Your task to perform on an android device: refresh tabs in the chrome app Image 0: 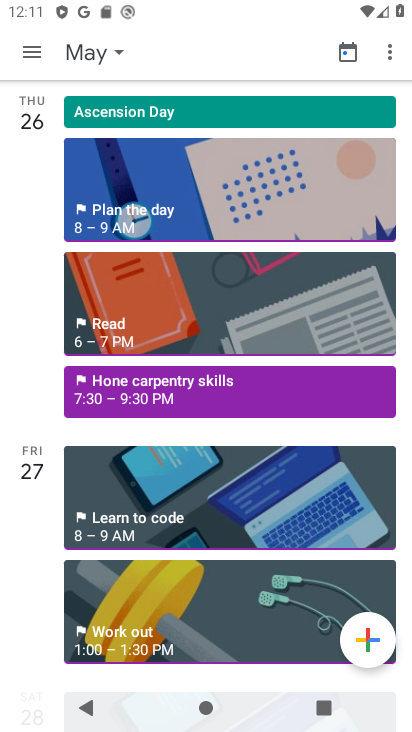
Step 0: press home button
Your task to perform on an android device: refresh tabs in the chrome app Image 1: 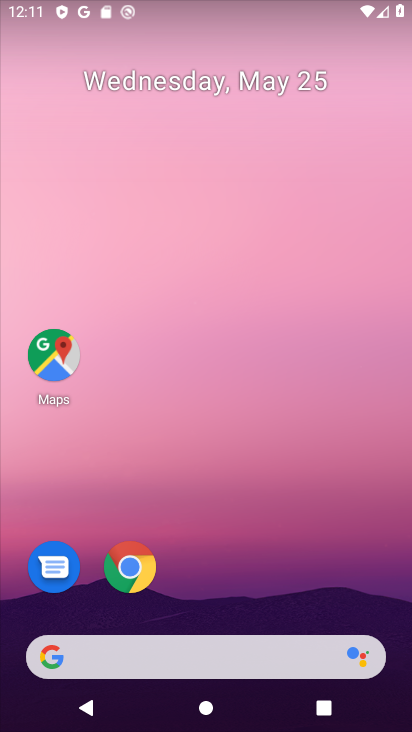
Step 1: click (130, 564)
Your task to perform on an android device: refresh tabs in the chrome app Image 2: 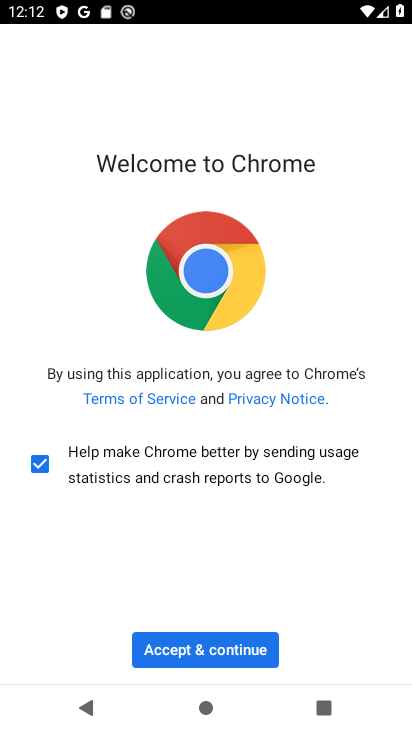
Step 2: click (220, 650)
Your task to perform on an android device: refresh tabs in the chrome app Image 3: 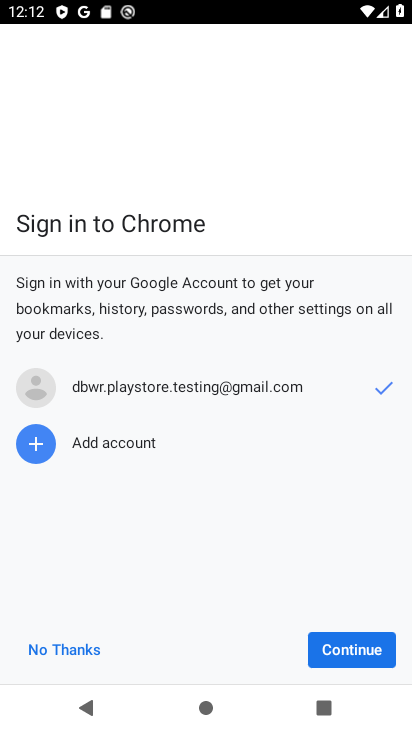
Step 3: click (354, 655)
Your task to perform on an android device: refresh tabs in the chrome app Image 4: 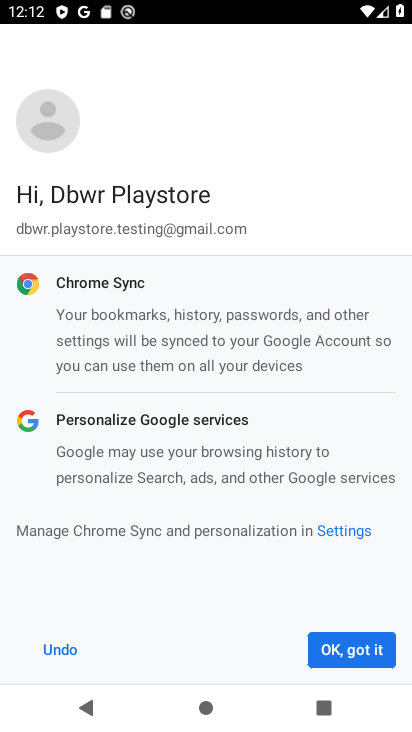
Step 4: click (355, 643)
Your task to perform on an android device: refresh tabs in the chrome app Image 5: 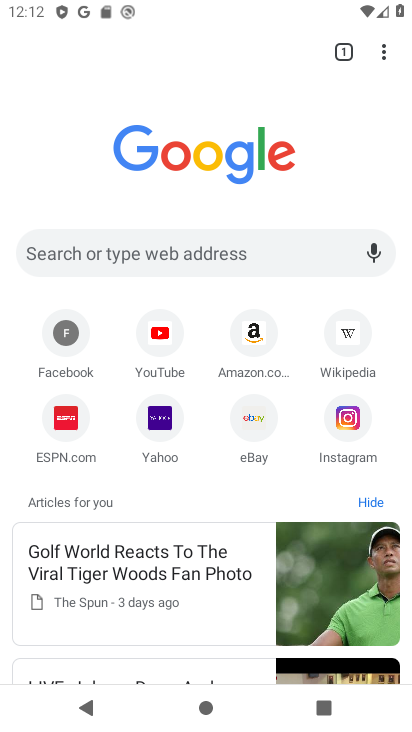
Step 5: click (384, 51)
Your task to perform on an android device: refresh tabs in the chrome app Image 6: 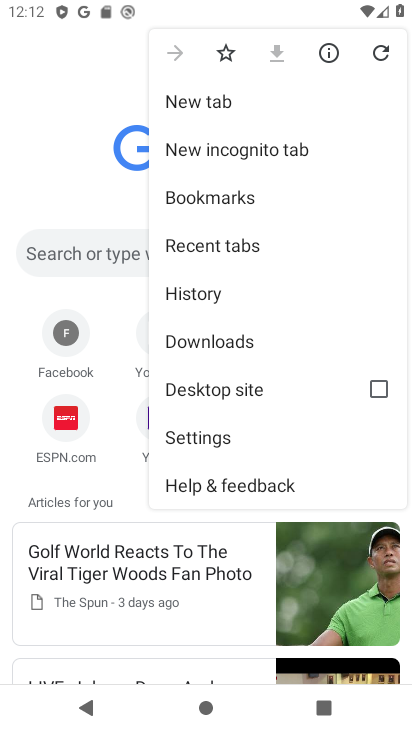
Step 6: click (384, 51)
Your task to perform on an android device: refresh tabs in the chrome app Image 7: 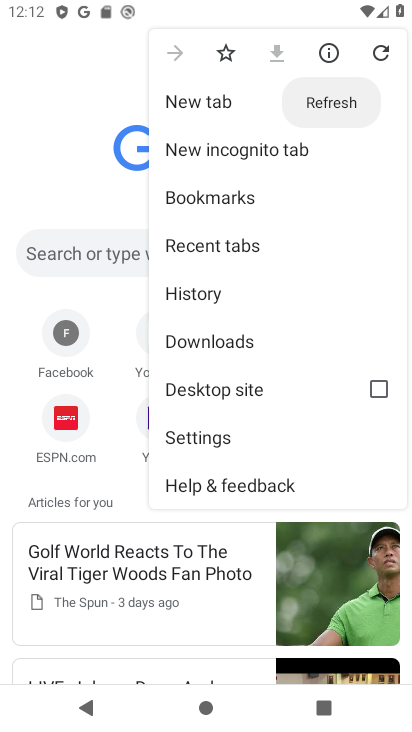
Step 7: click (384, 51)
Your task to perform on an android device: refresh tabs in the chrome app Image 8: 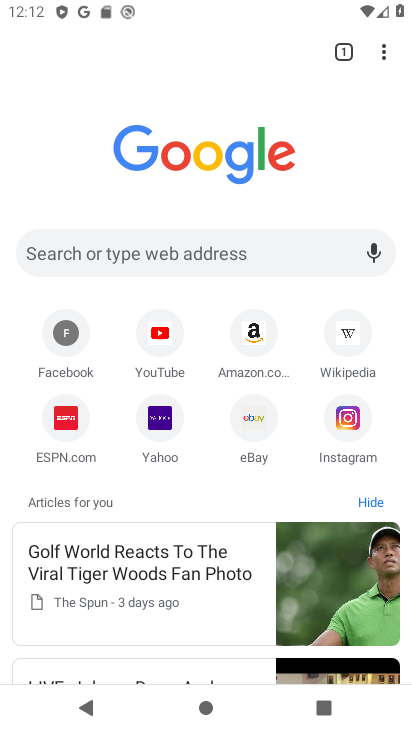
Step 8: task complete